Your task to perform on an android device: turn vacation reply on in the gmail app Image 0: 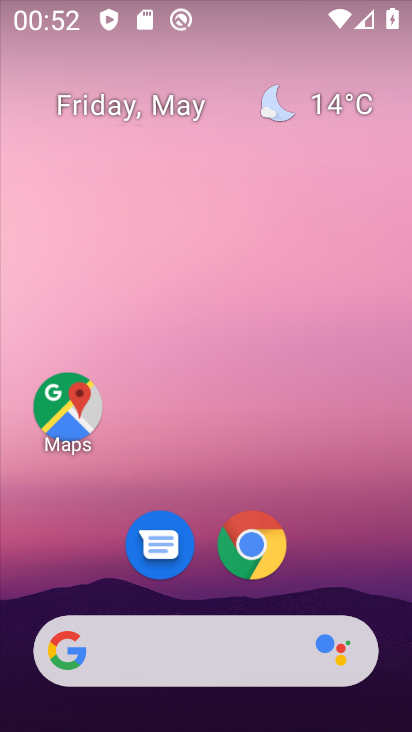
Step 0: drag from (342, 569) to (311, 145)
Your task to perform on an android device: turn vacation reply on in the gmail app Image 1: 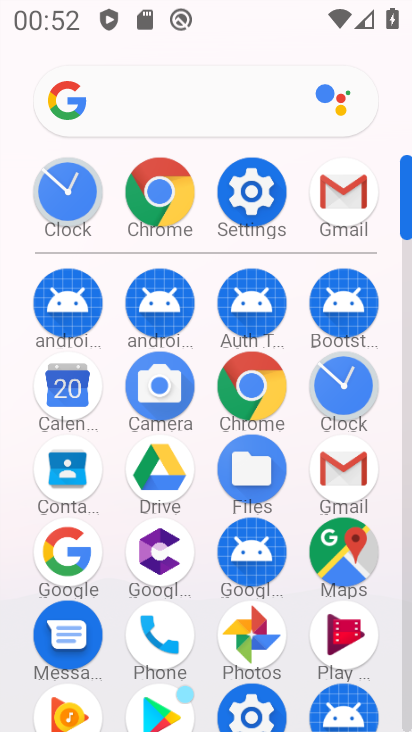
Step 1: click (339, 212)
Your task to perform on an android device: turn vacation reply on in the gmail app Image 2: 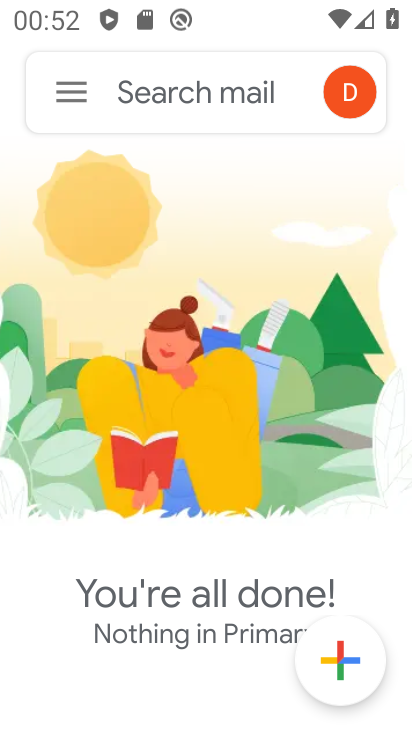
Step 2: click (66, 97)
Your task to perform on an android device: turn vacation reply on in the gmail app Image 3: 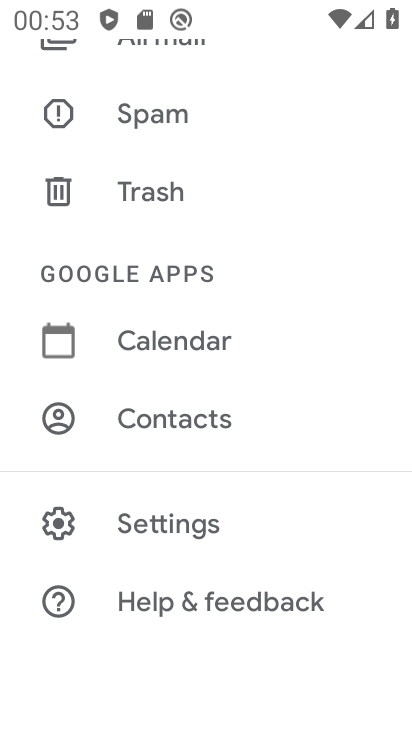
Step 3: click (149, 529)
Your task to perform on an android device: turn vacation reply on in the gmail app Image 4: 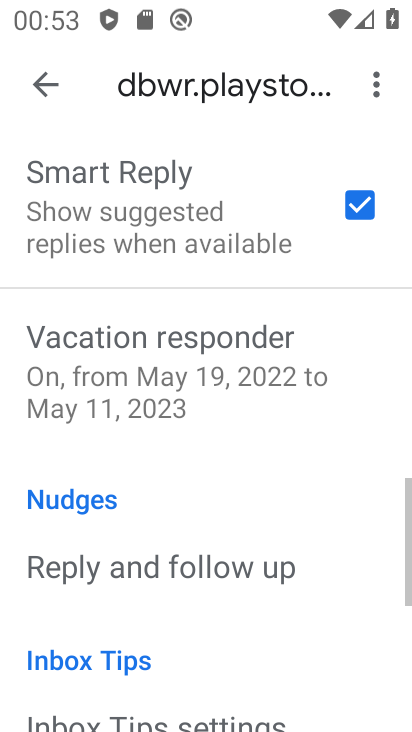
Step 4: drag from (149, 610) to (188, 6)
Your task to perform on an android device: turn vacation reply on in the gmail app Image 5: 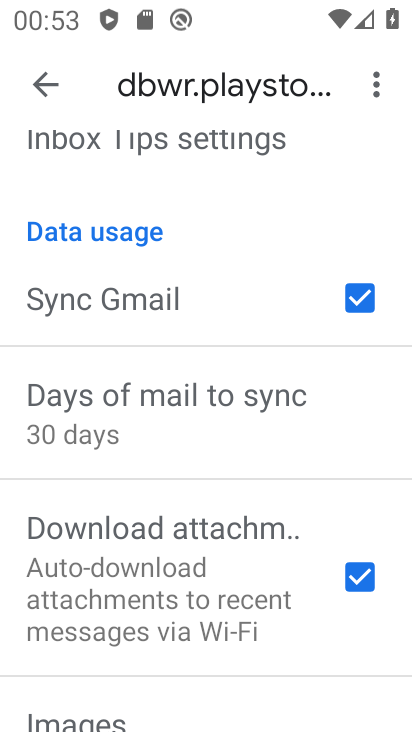
Step 5: drag from (164, 631) to (196, 352)
Your task to perform on an android device: turn vacation reply on in the gmail app Image 6: 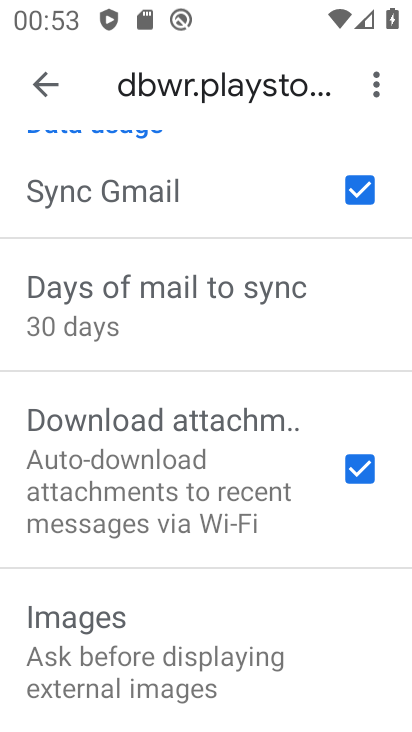
Step 6: drag from (213, 283) to (177, 511)
Your task to perform on an android device: turn vacation reply on in the gmail app Image 7: 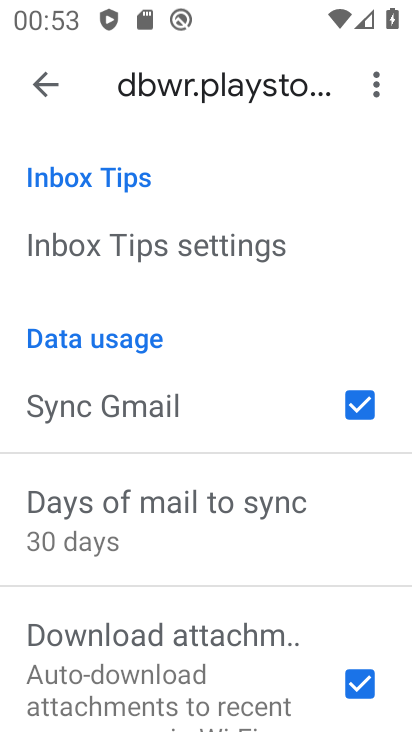
Step 7: drag from (198, 255) to (198, 549)
Your task to perform on an android device: turn vacation reply on in the gmail app Image 8: 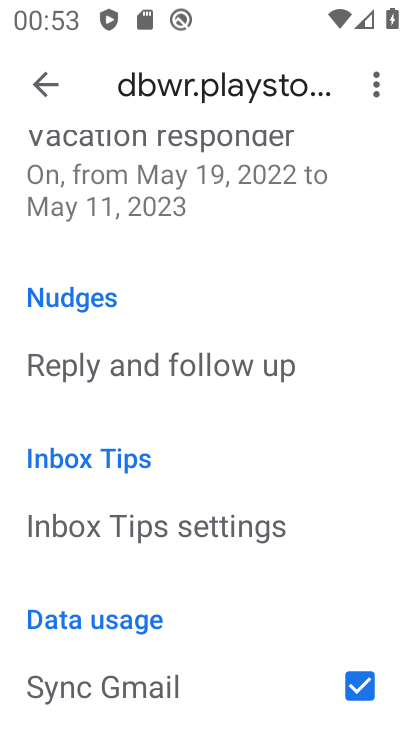
Step 8: drag from (150, 578) to (148, 632)
Your task to perform on an android device: turn vacation reply on in the gmail app Image 9: 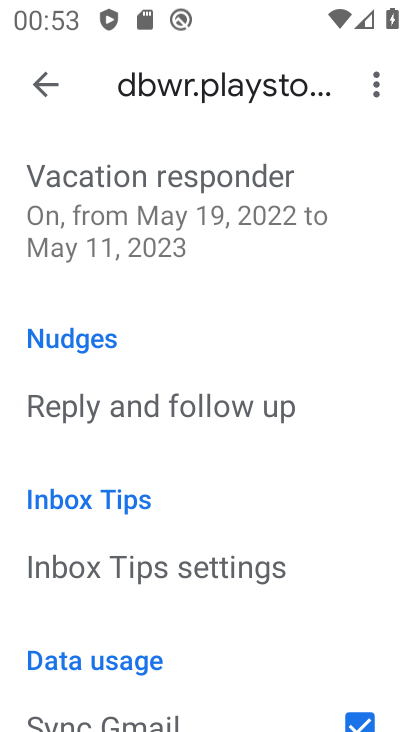
Step 9: drag from (174, 437) to (176, 641)
Your task to perform on an android device: turn vacation reply on in the gmail app Image 10: 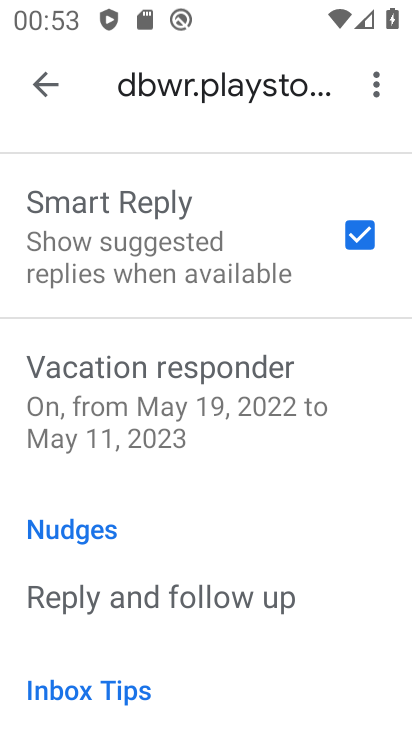
Step 10: click (167, 411)
Your task to perform on an android device: turn vacation reply on in the gmail app Image 11: 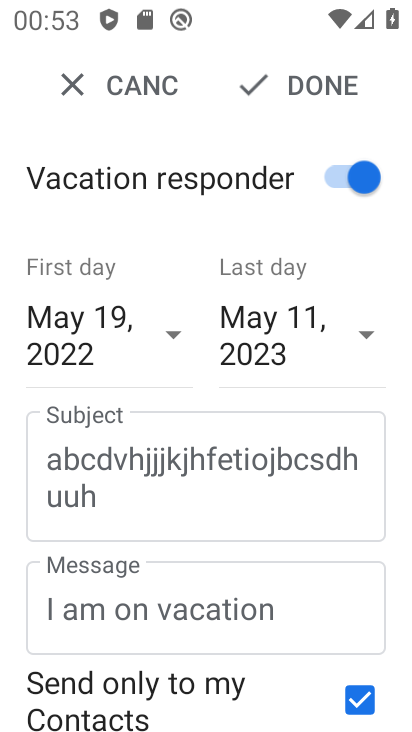
Step 11: task complete